Your task to perform on an android device: Open the map Image 0: 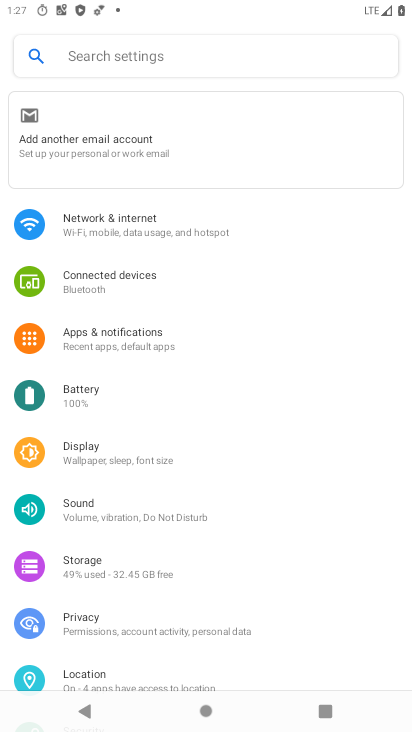
Step 0: press home button
Your task to perform on an android device: Open the map Image 1: 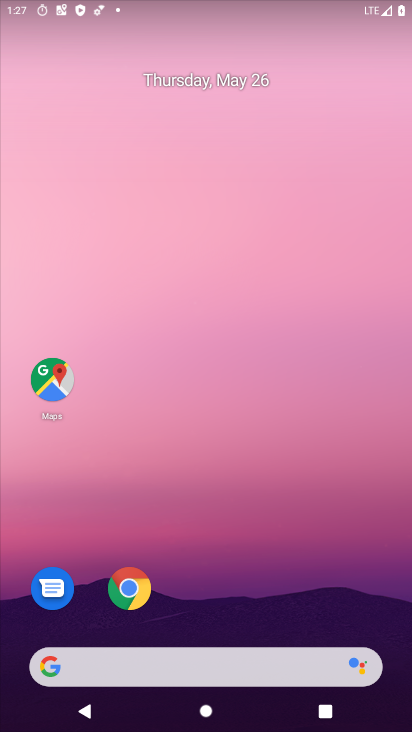
Step 1: click (45, 384)
Your task to perform on an android device: Open the map Image 2: 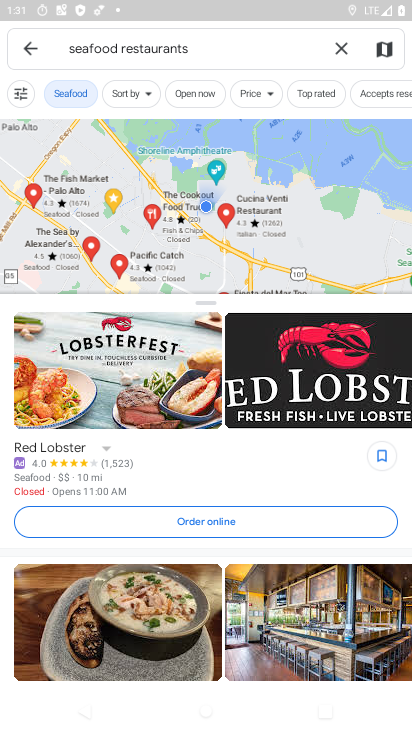
Step 2: task complete